Your task to perform on an android device: turn on data saver in the chrome app Image 0: 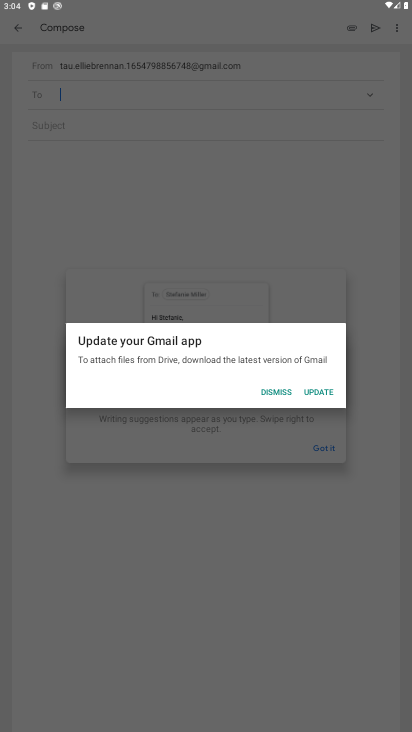
Step 0: press home button
Your task to perform on an android device: turn on data saver in the chrome app Image 1: 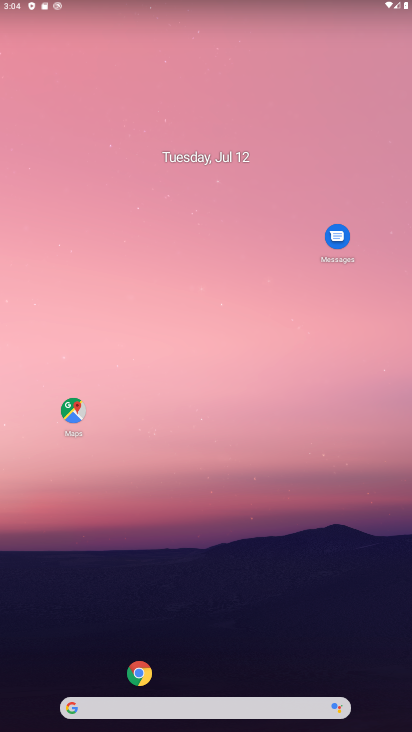
Step 1: click (140, 672)
Your task to perform on an android device: turn on data saver in the chrome app Image 2: 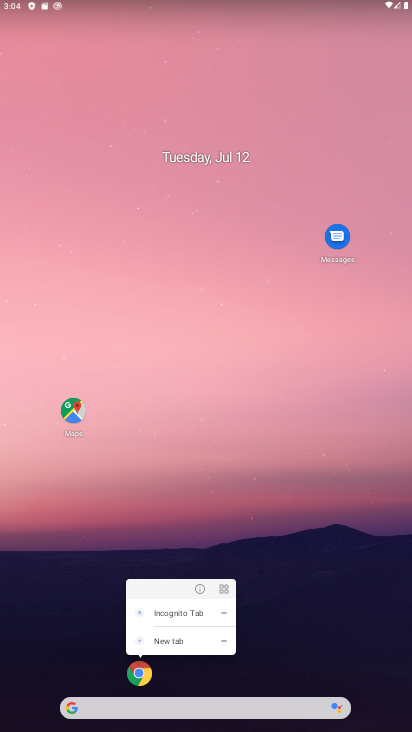
Step 2: click (141, 663)
Your task to perform on an android device: turn on data saver in the chrome app Image 3: 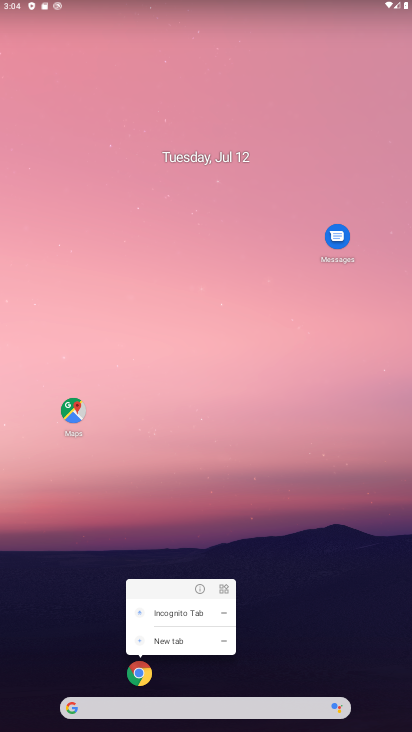
Step 3: click (139, 672)
Your task to perform on an android device: turn on data saver in the chrome app Image 4: 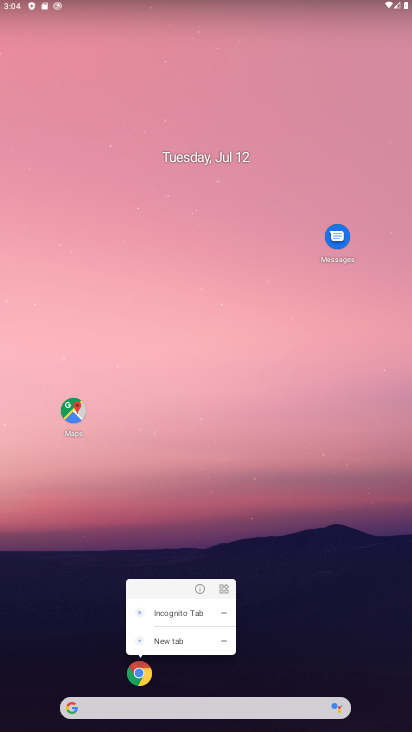
Step 4: click (139, 672)
Your task to perform on an android device: turn on data saver in the chrome app Image 5: 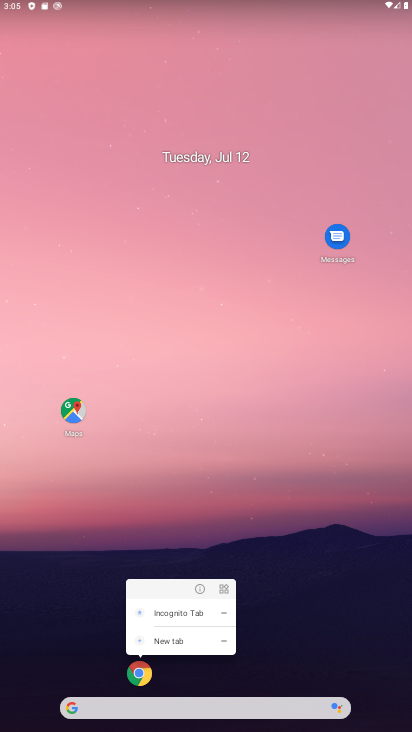
Step 5: click (137, 666)
Your task to perform on an android device: turn on data saver in the chrome app Image 6: 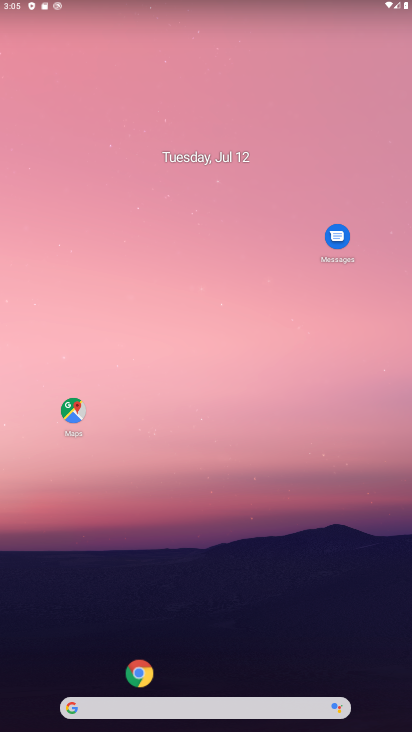
Step 6: click (138, 668)
Your task to perform on an android device: turn on data saver in the chrome app Image 7: 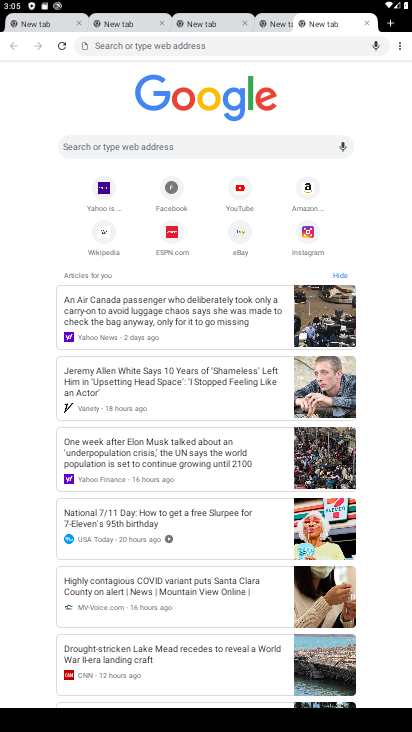
Step 7: click (398, 43)
Your task to perform on an android device: turn on data saver in the chrome app Image 8: 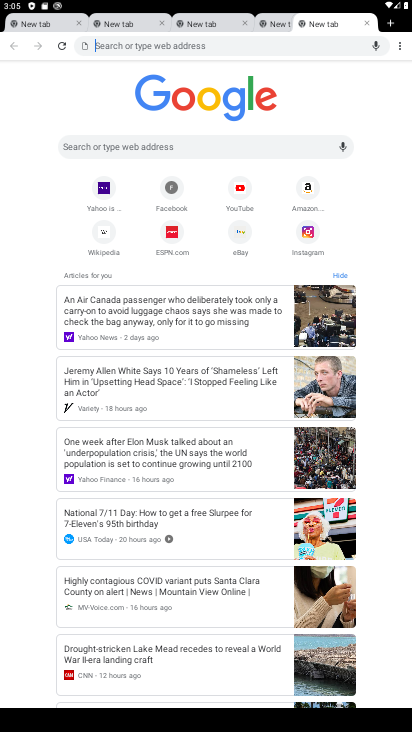
Step 8: click (392, 41)
Your task to perform on an android device: turn on data saver in the chrome app Image 9: 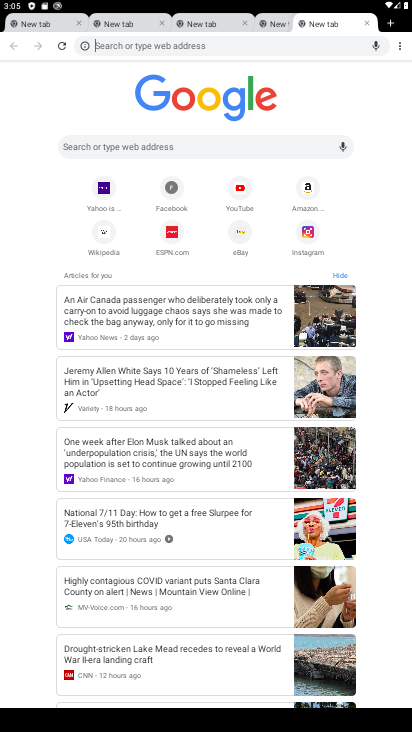
Step 9: click (399, 45)
Your task to perform on an android device: turn on data saver in the chrome app Image 10: 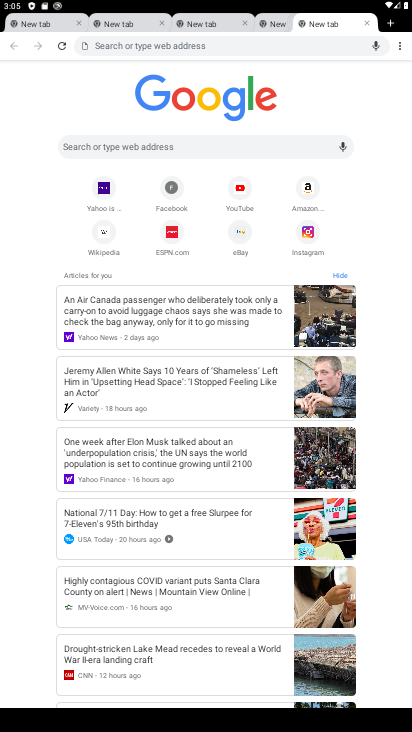
Step 10: task complete